Your task to perform on an android device: Go to calendar. Show me events next week Image 0: 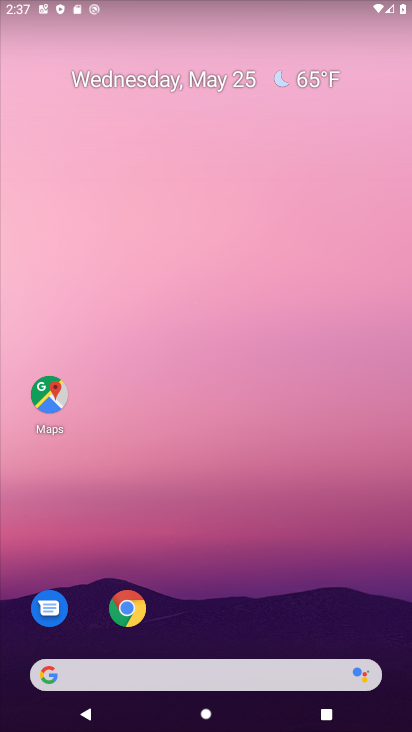
Step 0: drag from (274, 624) to (273, 0)
Your task to perform on an android device: Go to calendar. Show me events next week Image 1: 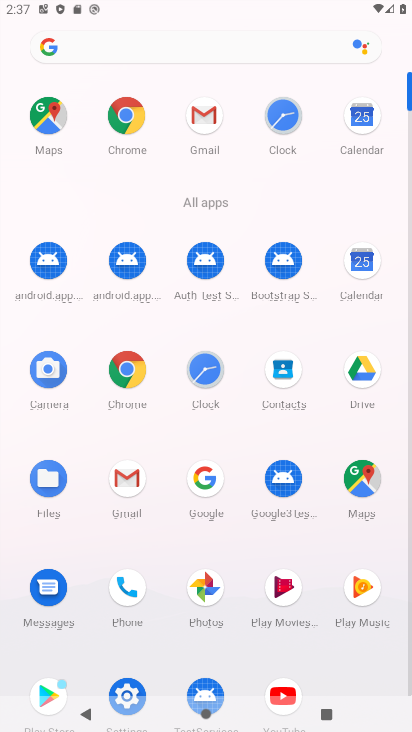
Step 1: click (362, 123)
Your task to perform on an android device: Go to calendar. Show me events next week Image 2: 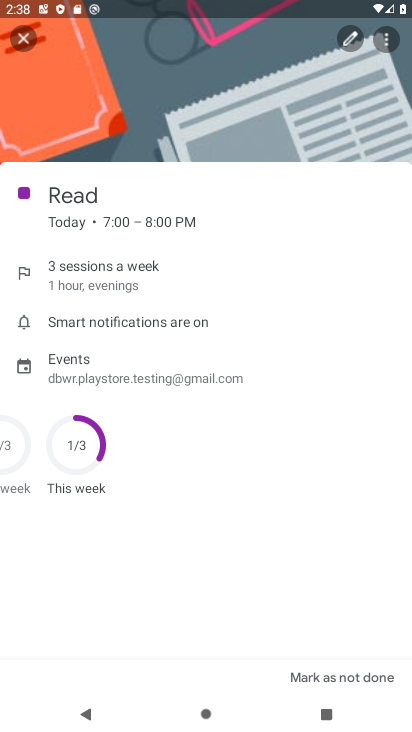
Step 2: click (19, 41)
Your task to perform on an android device: Go to calendar. Show me events next week Image 3: 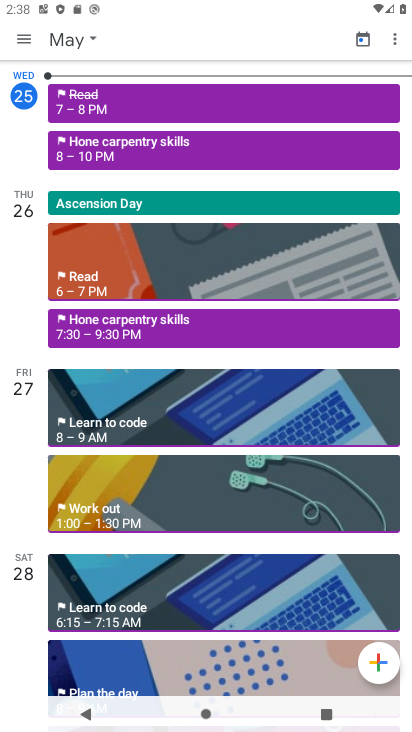
Step 3: click (24, 46)
Your task to perform on an android device: Go to calendar. Show me events next week Image 4: 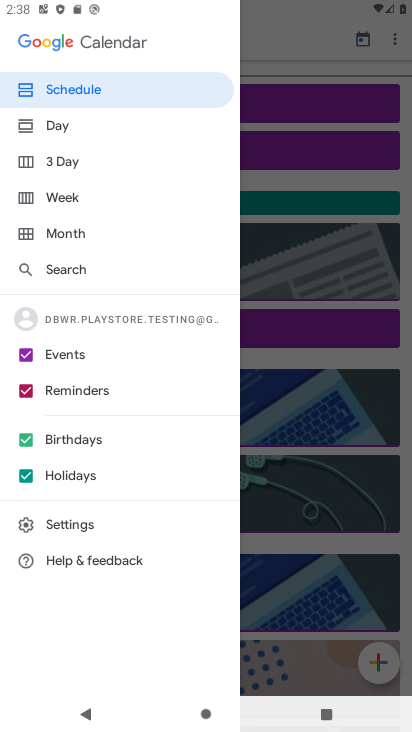
Step 4: click (52, 199)
Your task to perform on an android device: Go to calendar. Show me events next week Image 5: 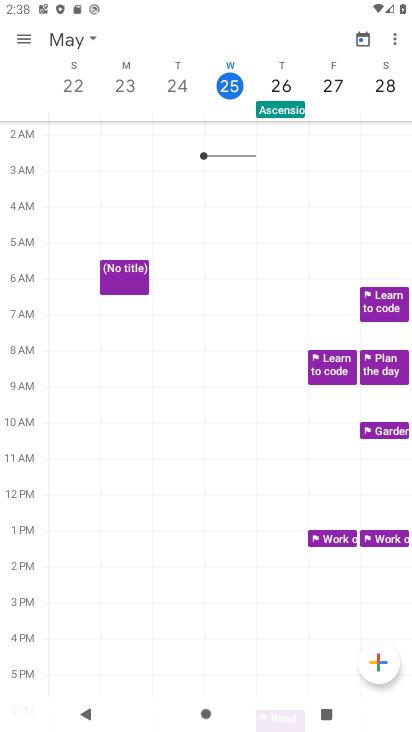
Step 5: drag from (335, 418) to (11, 429)
Your task to perform on an android device: Go to calendar. Show me events next week Image 6: 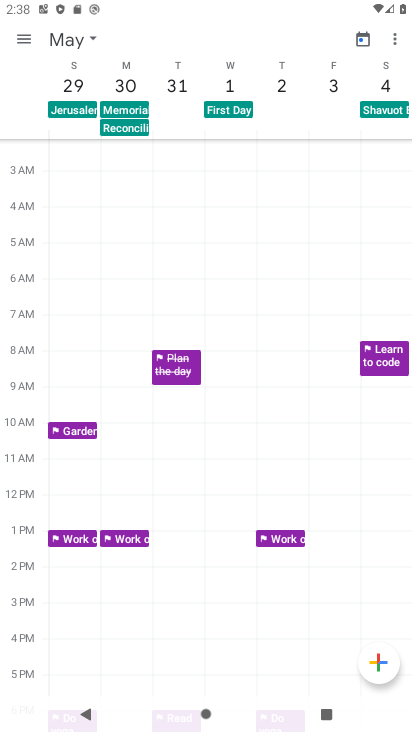
Step 6: click (17, 43)
Your task to perform on an android device: Go to calendar. Show me events next week Image 7: 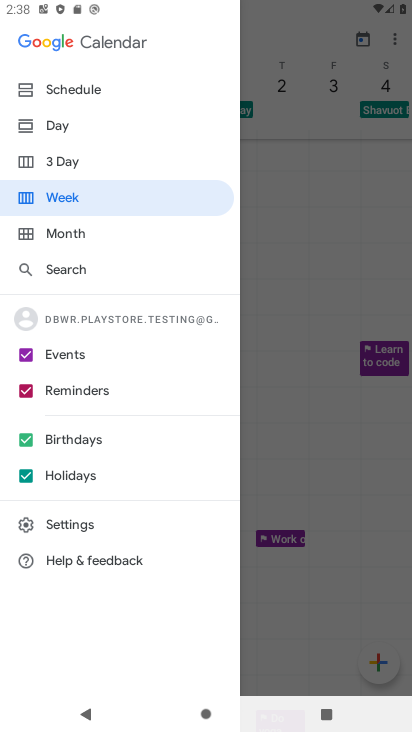
Step 7: click (23, 393)
Your task to perform on an android device: Go to calendar. Show me events next week Image 8: 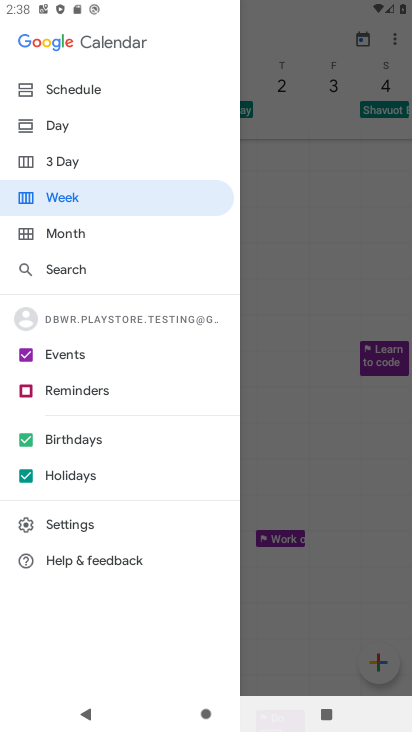
Step 8: click (28, 432)
Your task to perform on an android device: Go to calendar. Show me events next week Image 9: 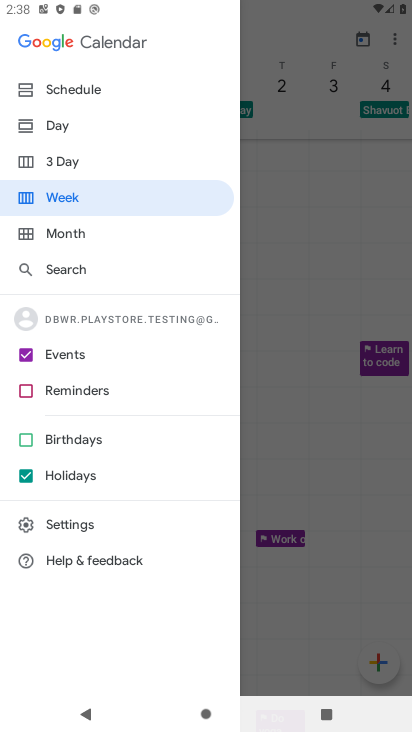
Step 9: click (22, 478)
Your task to perform on an android device: Go to calendar. Show me events next week Image 10: 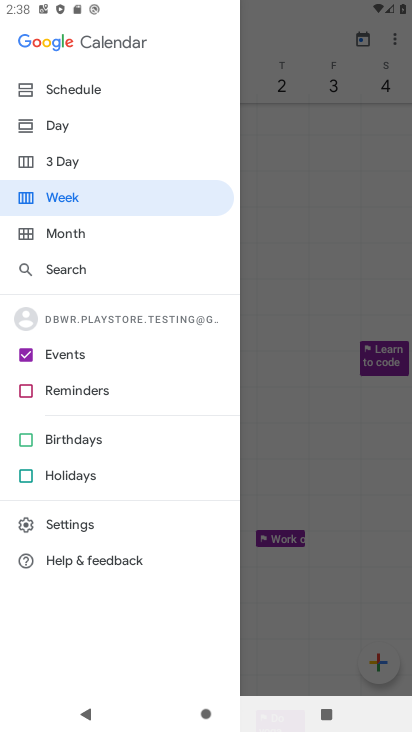
Step 10: click (24, 199)
Your task to perform on an android device: Go to calendar. Show me events next week Image 11: 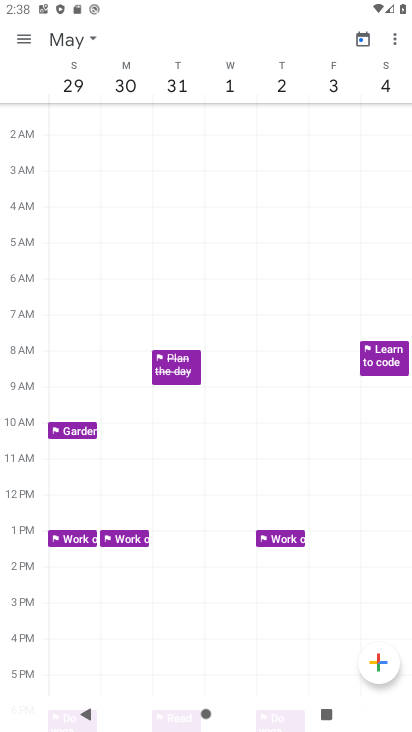
Step 11: task complete